Your task to perform on an android device: manage bookmarks in the chrome app Image 0: 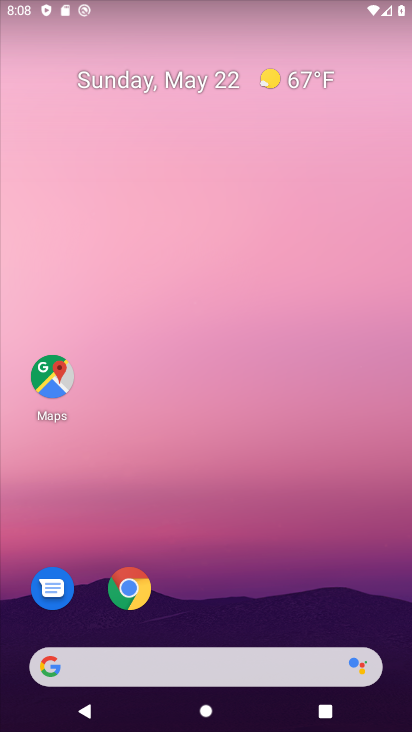
Step 0: click (114, 592)
Your task to perform on an android device: manage bookmarks in the chrome app Image 1: 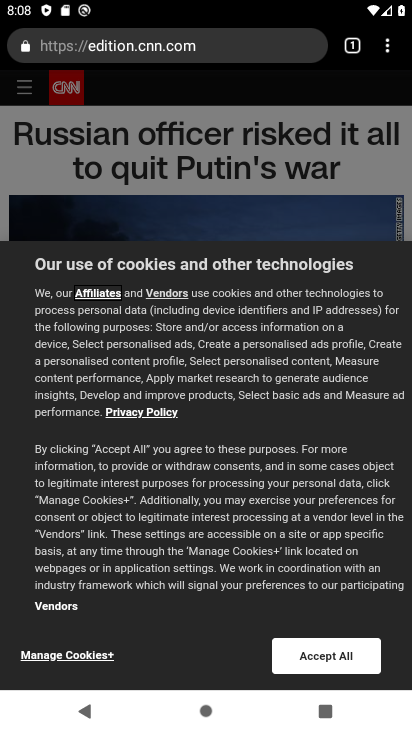
Step 1: click (348, 657)
Your task to perform on an android device: manage bookmarks in the chrome app Image 2: 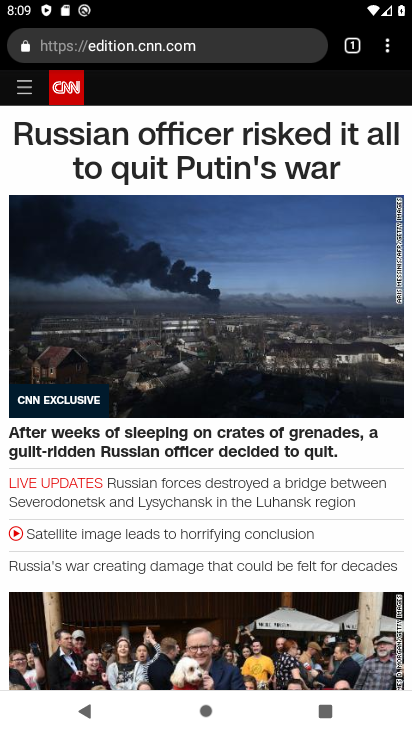
Step 2: click (384, 44)
Your task to perform on an android device: manage bookmarks in the chrome app Image 3: 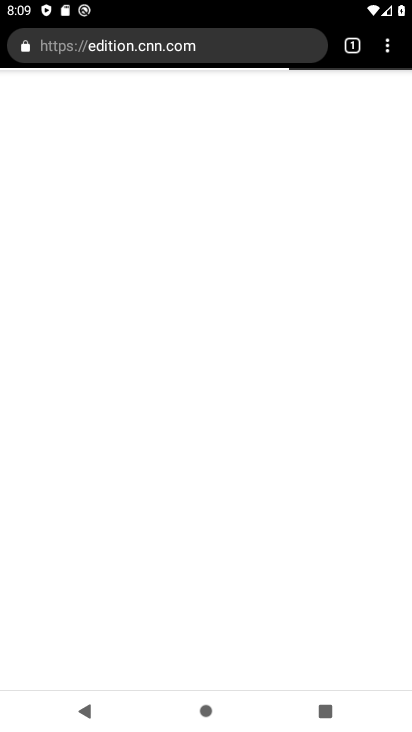
Step 3: drag from (384, 44) to (272, 177)
Your task to perform on an android device: manage bookmarks in the chrome app Image 4: 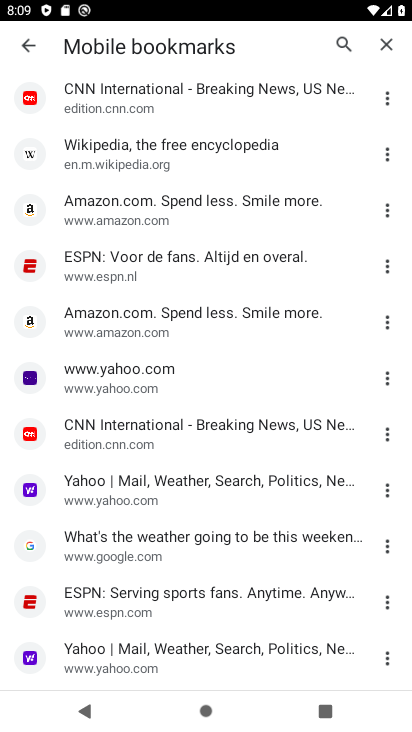
Step 4: click (388, 207)
Your task to perform on an android device: manage bookmarks in the chrome app Image 5: 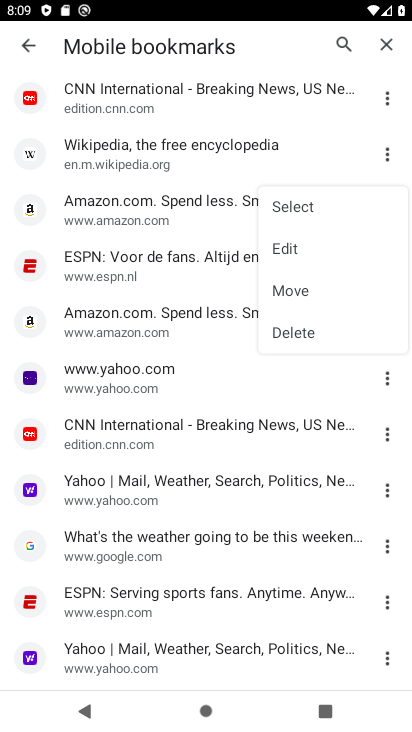
Step 5: click (298, 325)
Your task to perform on an android device: manage bookmarks in the chrome app Image 6: 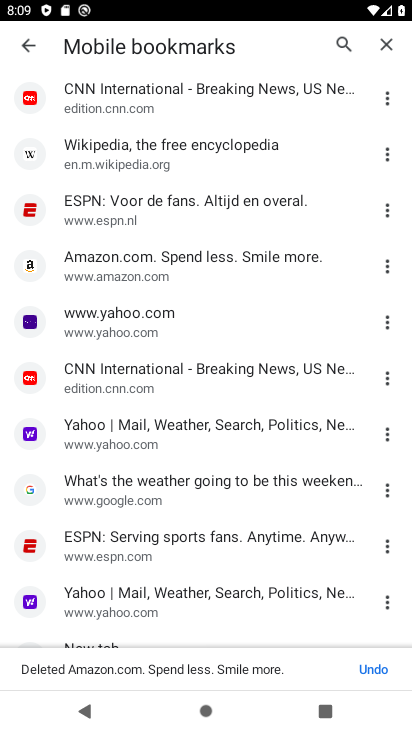
Step 6: task complete